Your task to perform on an android device: Search for Italian restaurants on Maps Image 0: 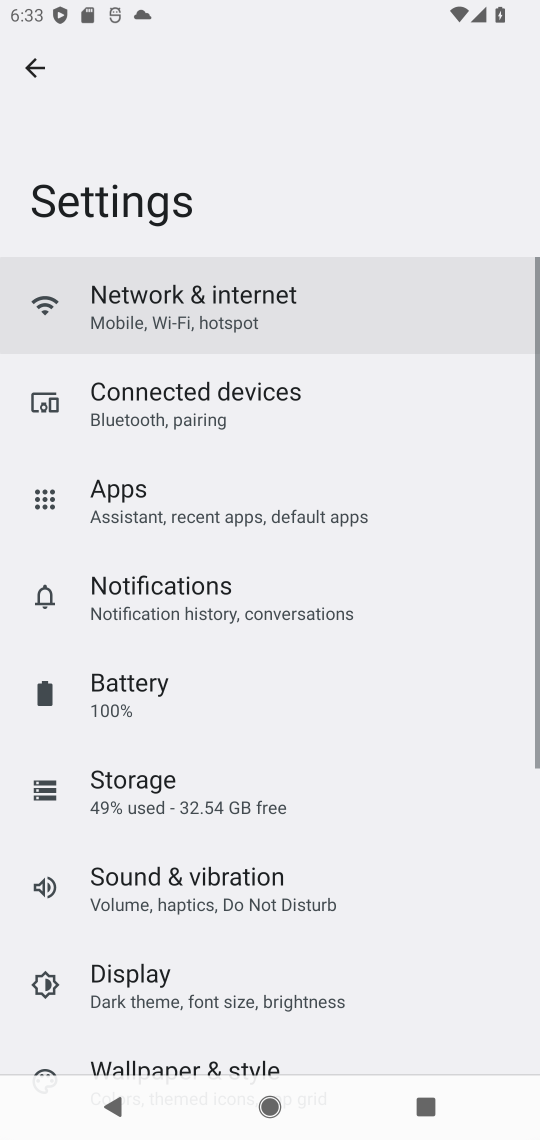
Step 0: press home button
Your task to perform on an android device: Search for Italian restaurants on Maps Image 1: 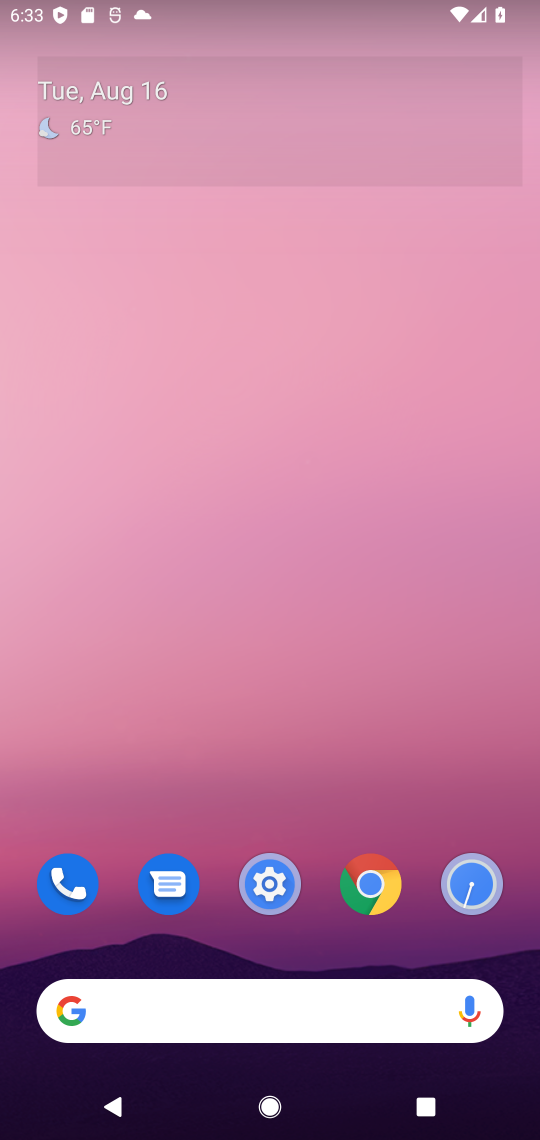
Step 1: drag from (328, 945) to (386, 242)
Your task to perform on an android device: Search for Italian restaurants on Maps Image 2: 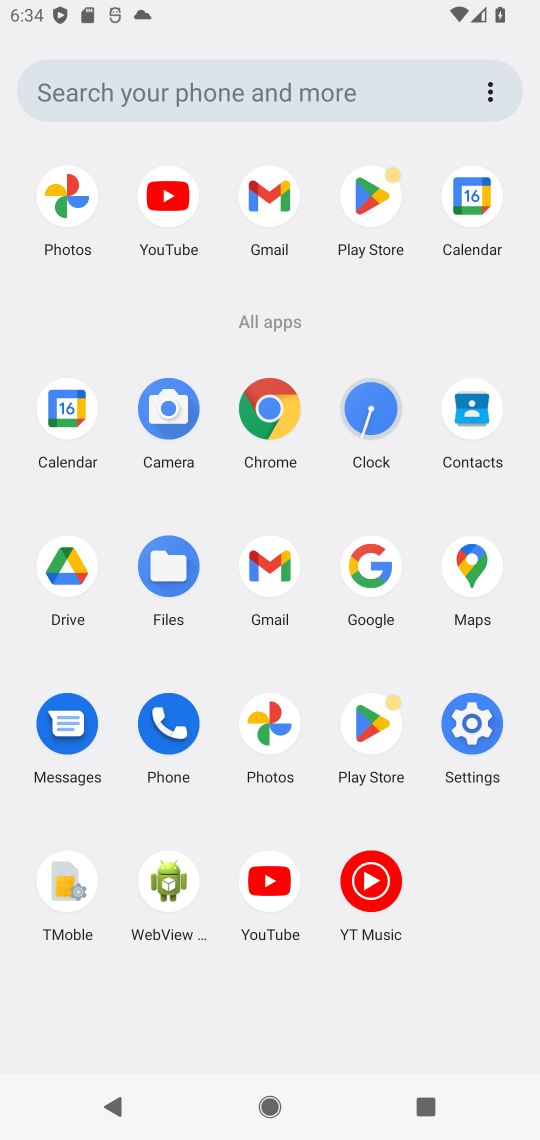
Step 2: click (470, 574)
Your task to perform on an android device: Search for Italian restaurants on Maps Image 3: 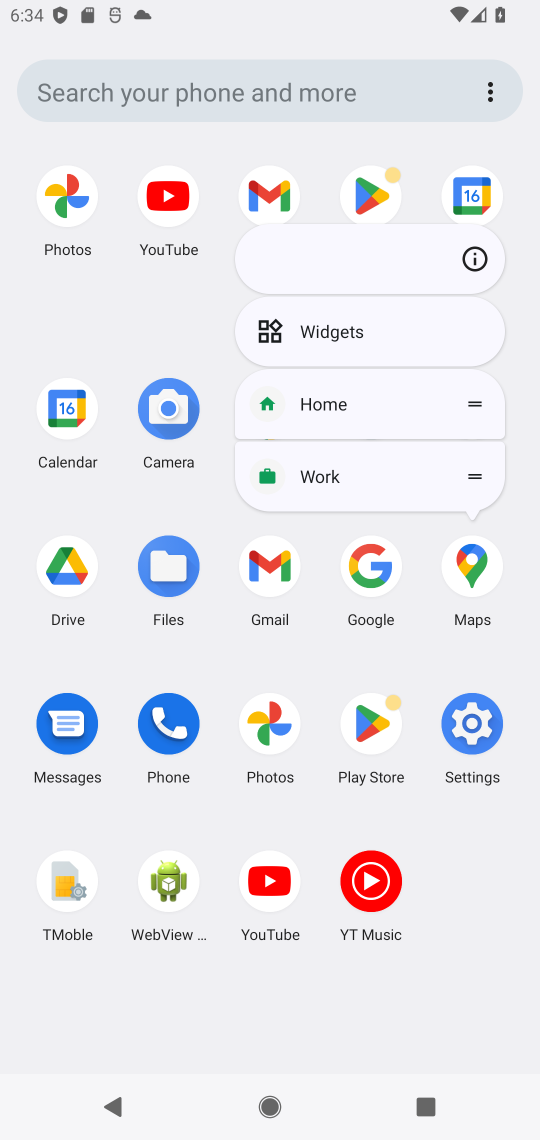
Step 3: click (470, 575)
Your task to perform on an android device: Search for Italian restaurants on Maps Image 4: 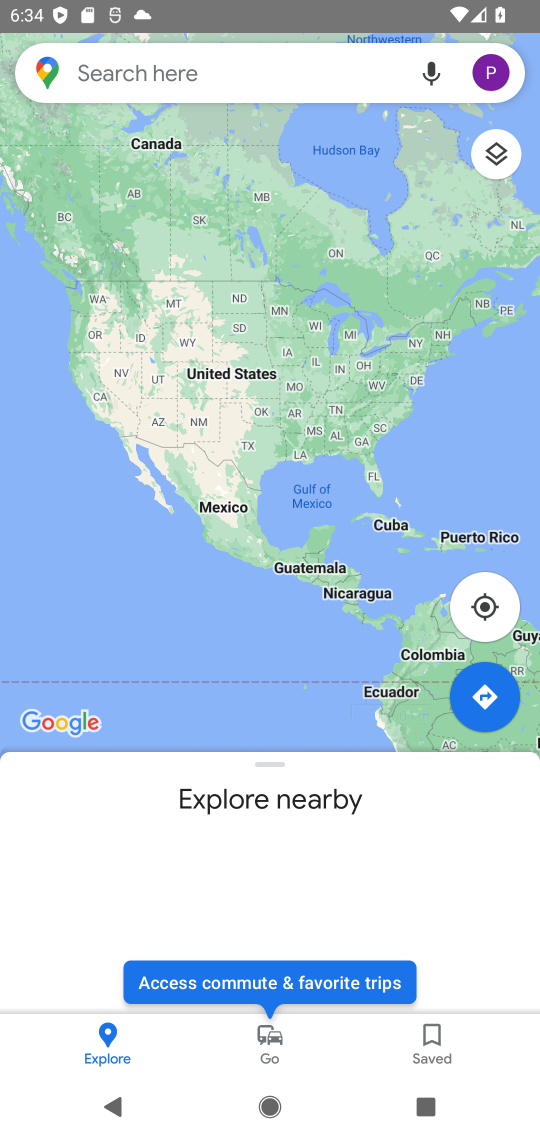
Step 4: click (167, 72)
Your task to perform on an android device: Search for Italian restaurants on Maps Image 5: 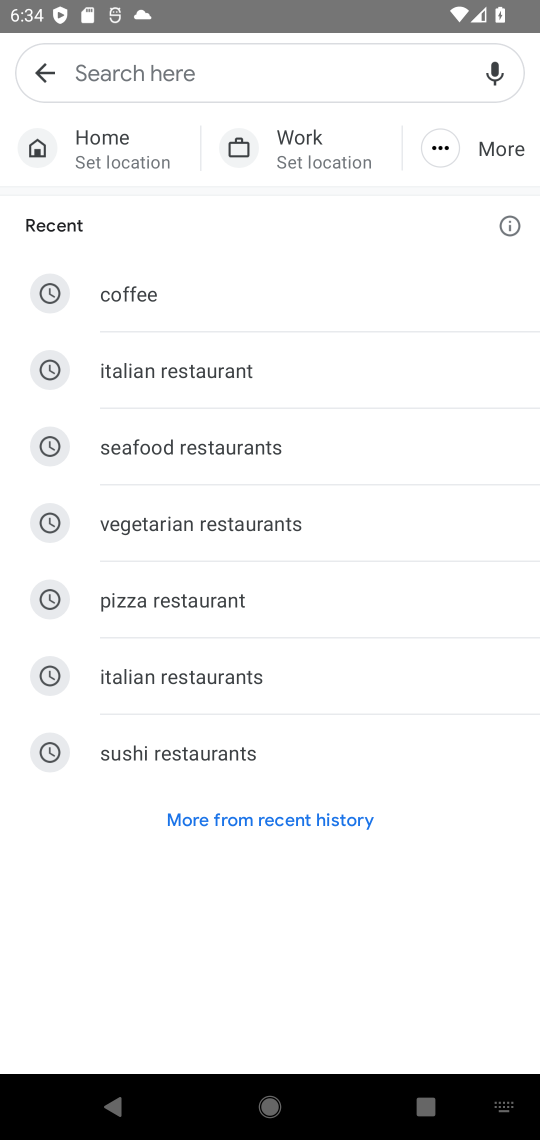
Step 5: click (204, 686)
Your task to perform on an android device: Search for Italian restaurants on Maps Image 6: 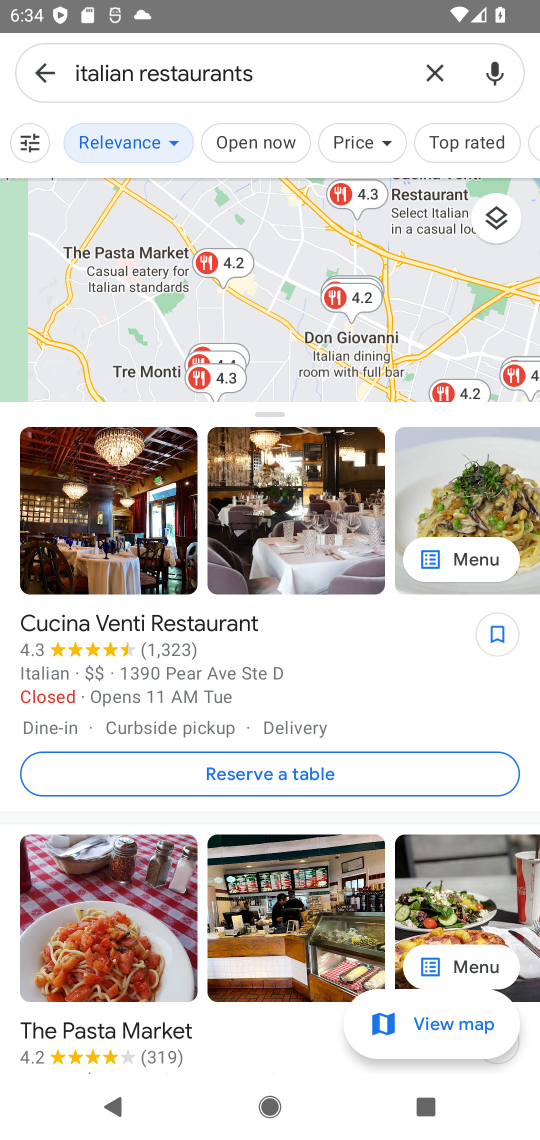
Step 6: task complete